Your task to perform on an android device: What's the weather? Image 0: 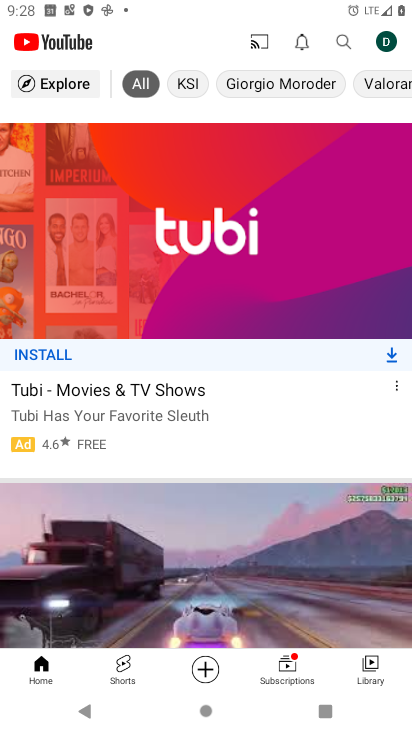
Step 0: press home button
Your task to perform on an android device: What's the weather? Image 1: 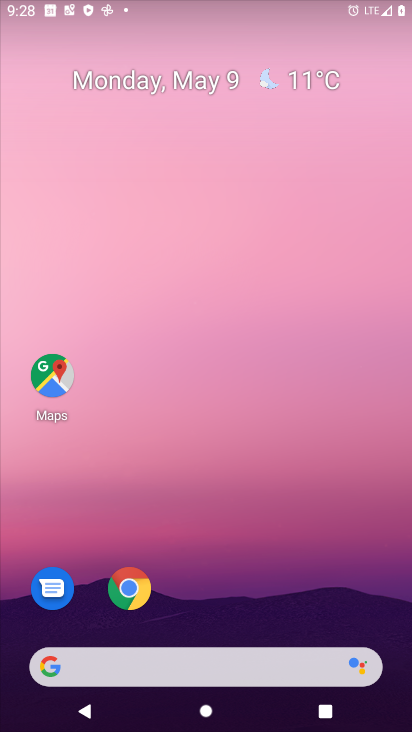
Step 1: drag from (318, 396) to (289, 203)
Your task to perform on an android device: What's the weather? Image 2: 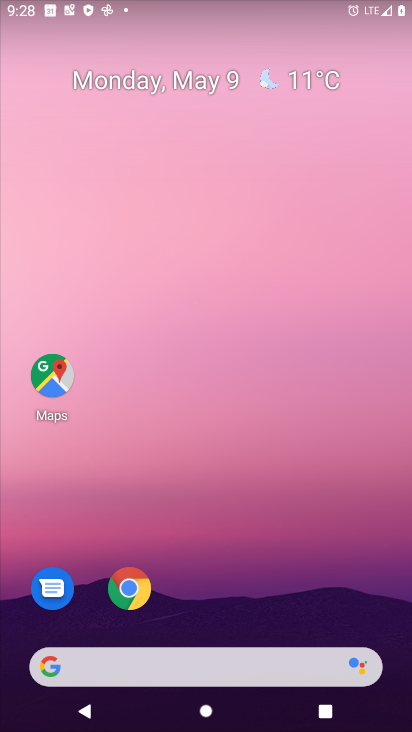
Step 2: click (220, 644)
Your task to perform on an android device: What's the weather? Image 3: 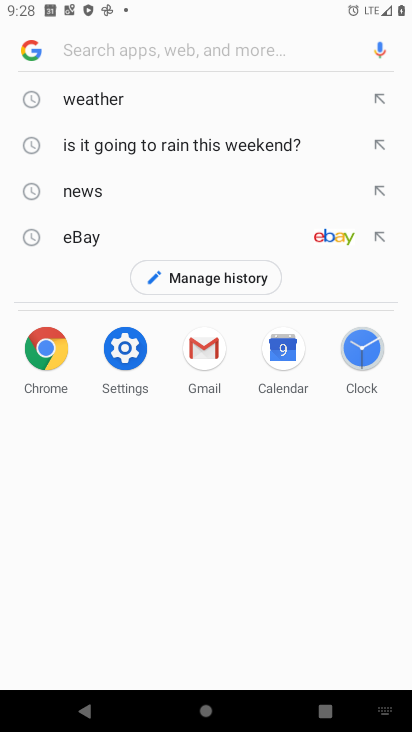
Step 3: click (176, 86)
Your task to perform on an android device: What's the weather? Image 4: 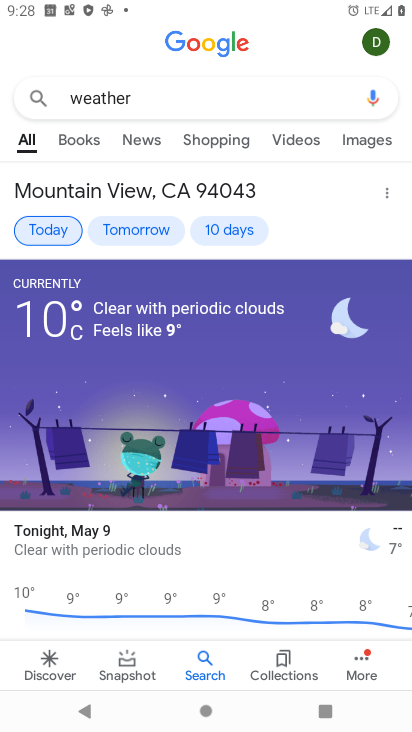
Step 4: task complete